Your task to perform on an android device: change timer sound Image 0: 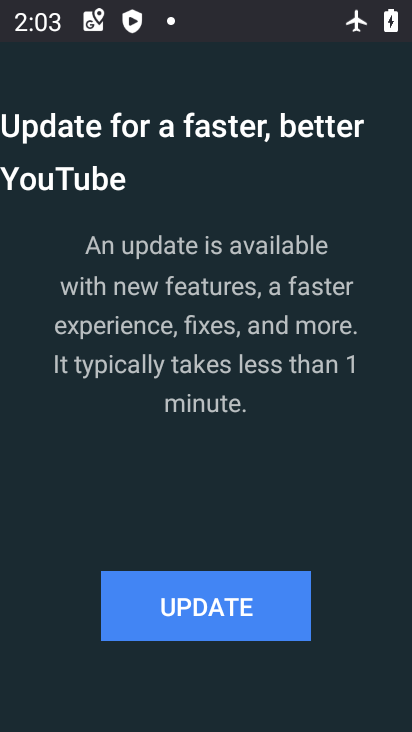
Step 0: press home button
Your task to perform on an android device: change timer sound Image 1: 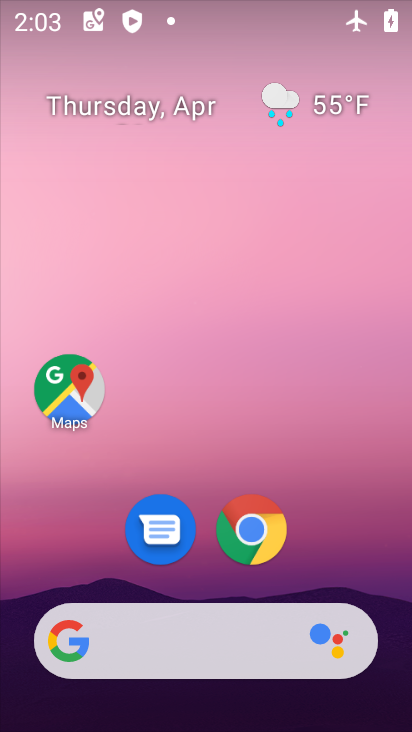
Step 1: drag from (189, 537) to (140, 155)
Your task to perform on an android device: change timer sound Image 2: 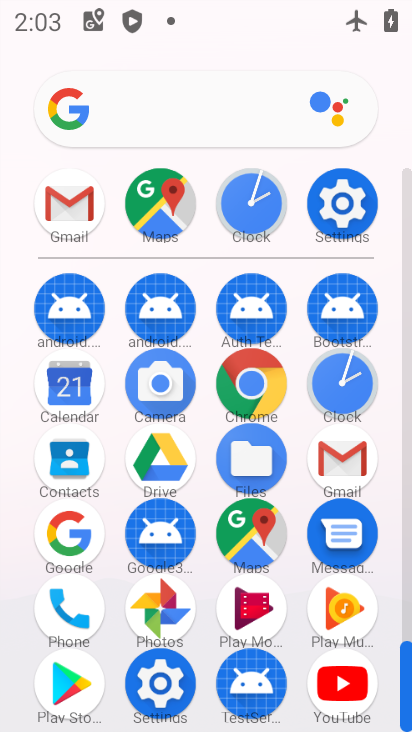
Step 2: click (347, 390)
Your task to perform on an android device: change timer sound Image 3: 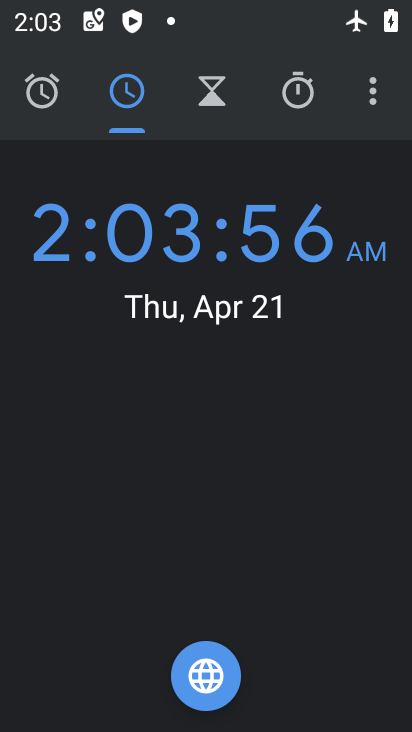
Step 3: click (371, 104)
Your task to perform on an android device: change timer sound Image 4: 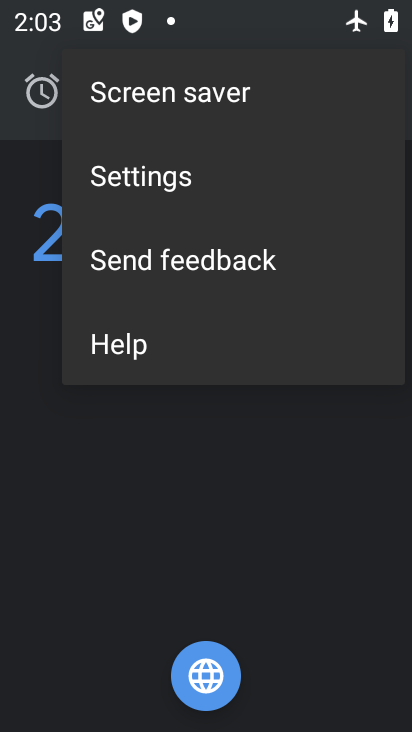
Step 4: click (219, 192)
Your task to perform on an android device: change timer sound Image 5: 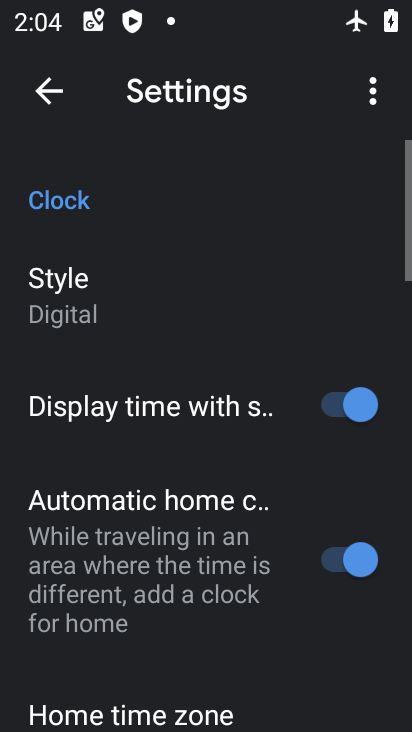
Step 5: drag from (198, 520) to (204, 229)
Your task to perform on an android device: change timer sound Image 6: 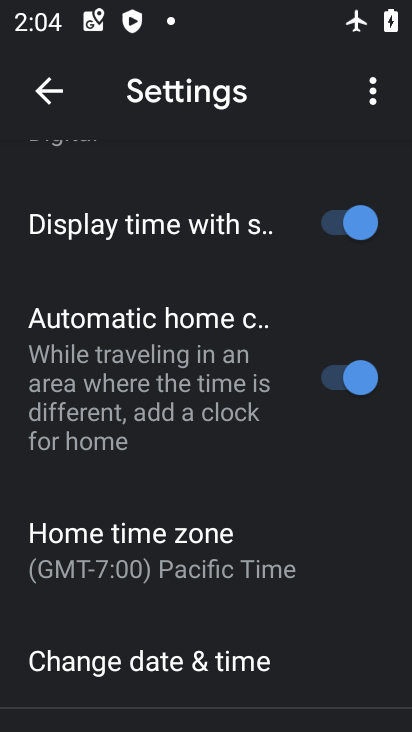
Step 6: drag from (218, 585) to (199, 352)
Your task to perform on an android device: change timer sound Image 7: 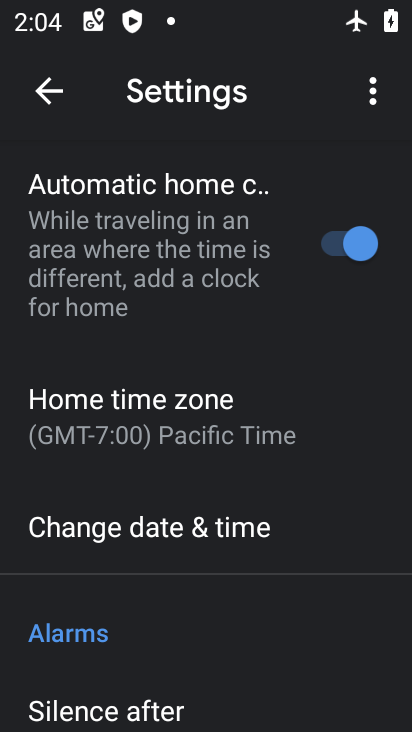
Step 7: drag from (203, 548) to (182, 309)
Your task to perform on an android device: change timer sound Image 8: 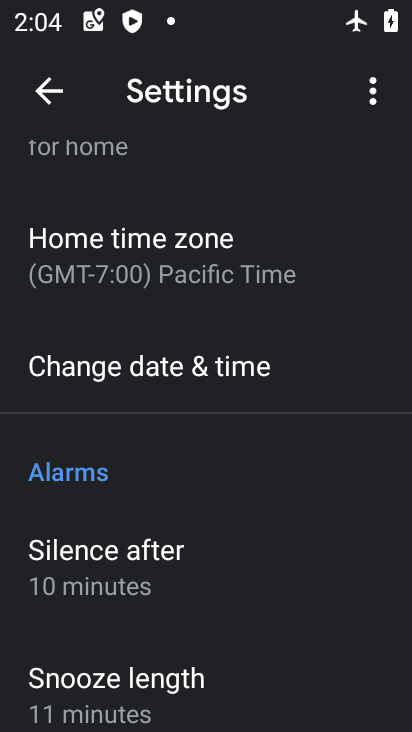
Step 8: drag from (191, 403) to (161, 307)
Your task to perform on an android device: change timer sound Image 9: 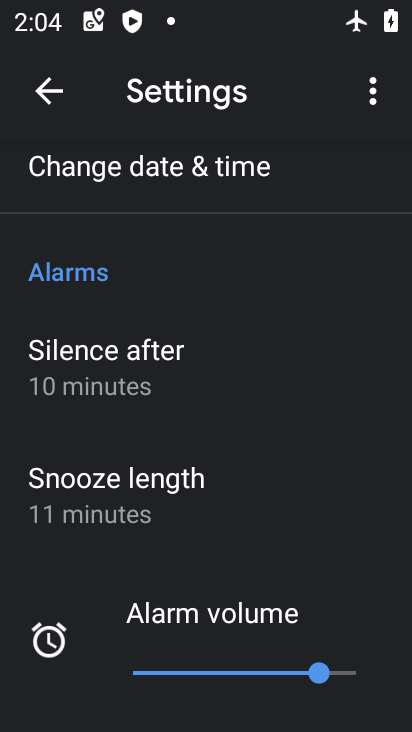
Step 9: drag from (188, 518) to (195, 289)
Your task to perform on an android device: change timer sound Image 10: 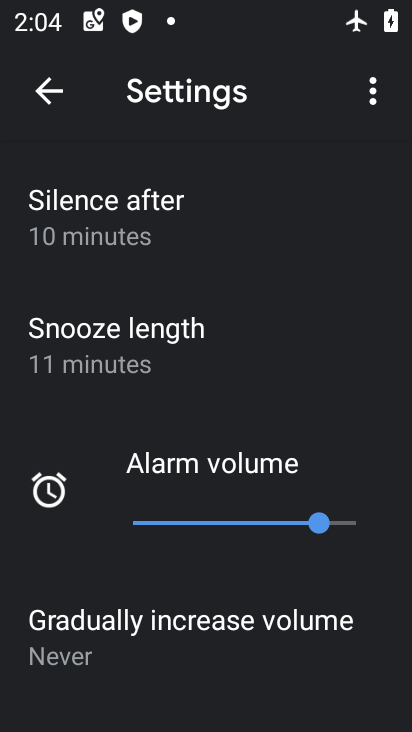
Step 10: drag from (220, 591) to (203, 297)
Your task to perform on an android device: change timer sound Image 11: 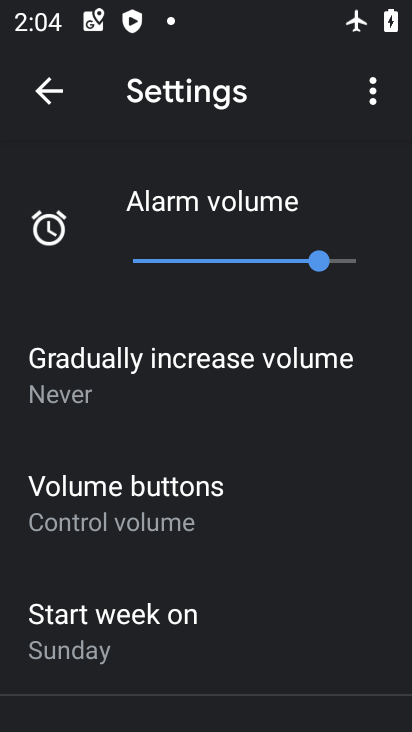
Step 11: drag from (202, 555) to (208, 293)
Your task to perform on an android device: change timer sound Image 12: 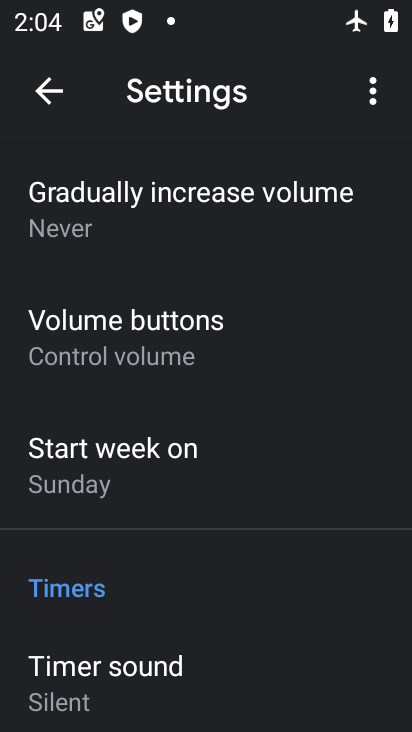
Step 12: drag from (214, 578) to (215, 336)
Your task to perform on an android device: change timer sound Image 13: 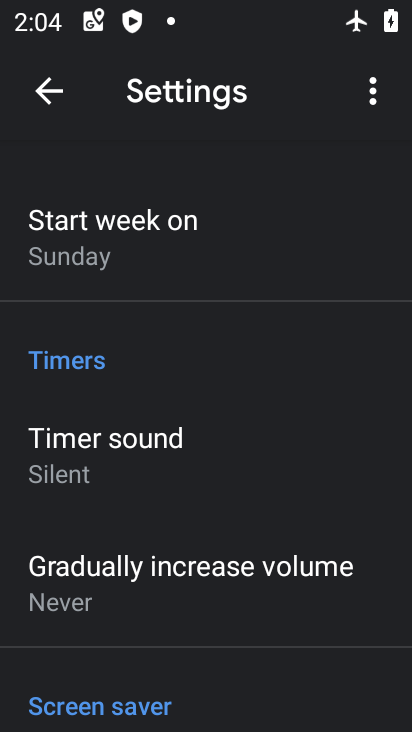
Step 13: click (169, 456)
Your task to perform on an android device: change timer sound Image 14: 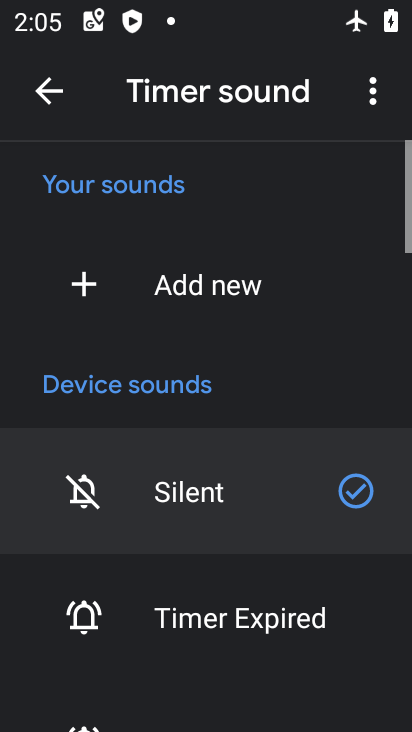
Step 14: click (240, 656)
Your task to perform on an android device: change timer sound Image 15: 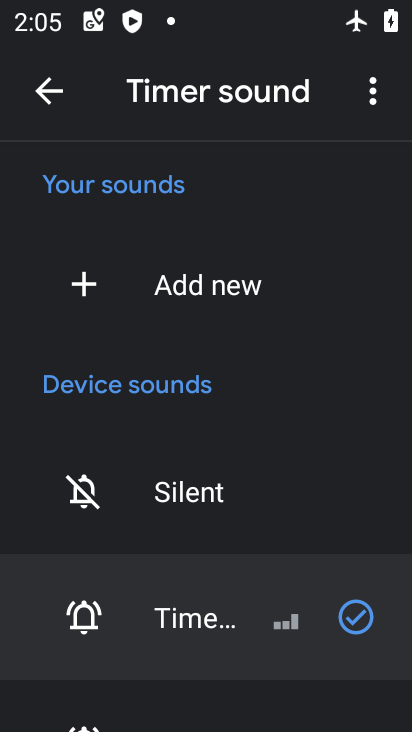
Step 15: task complete